Your task to perform on an android device: turn off data saver in the chrome app Image 0: 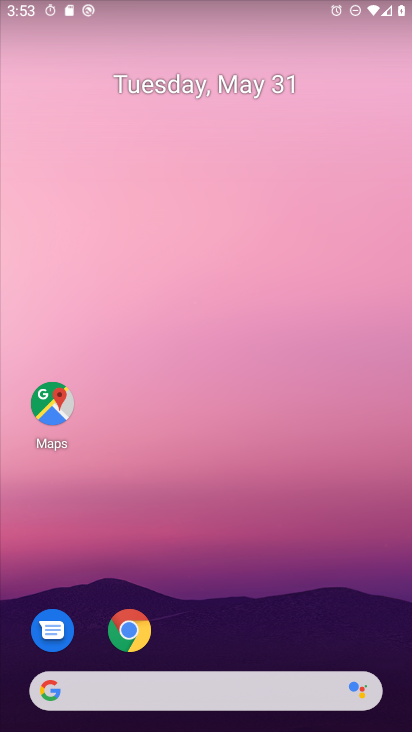
Step 0: drag from (331, 677) to (291, 0)
Your task to perform on an android device: turn off data saver in the chrome app Image 1: 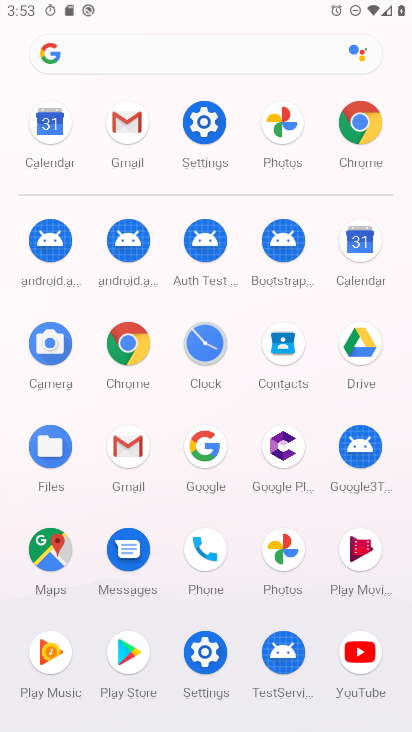
Step 1: click (136, 358)
Your task to perform on an android device: turn off data saver in the chrome app Image 2: 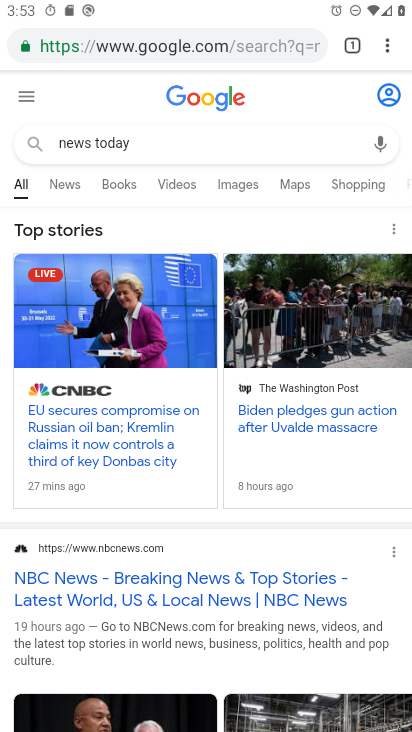
Step 2: click (386, 44)
Your task to perform on an android device: turn off data saver in the chrome app Image 3: 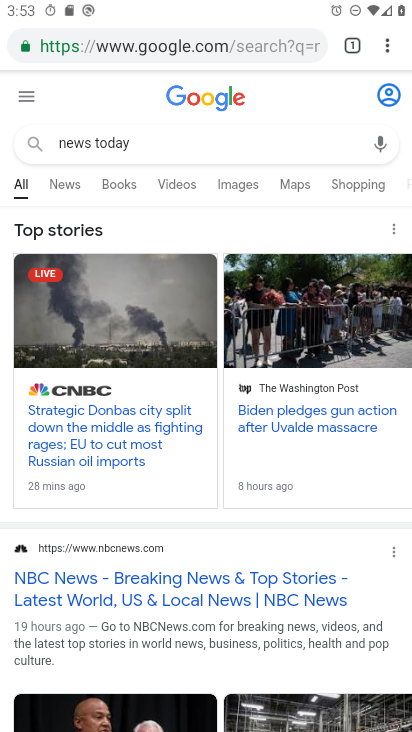
Step 3: drag from (390, 47) to (271, 507)
Your task to perform on an android device: turn off data saver in the chrome app Image 4: 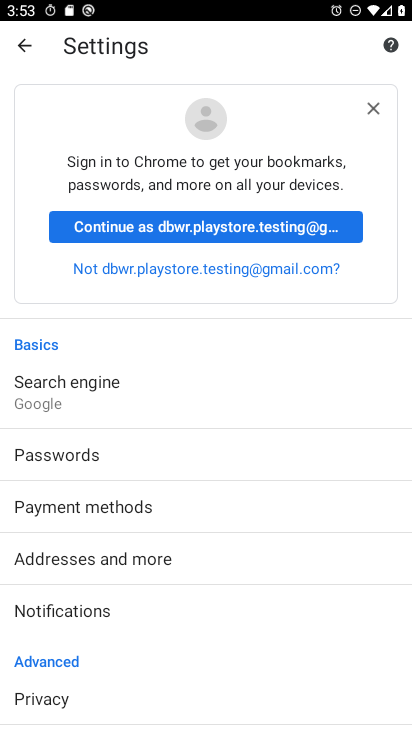
Step 4: drag from (98, 687) to (36, 0)
Your task to perform on an android device: turn off data saver in the chrome app Image 5: 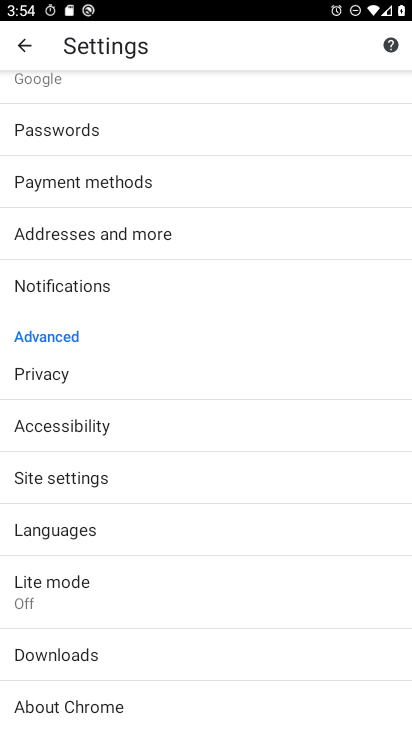
Step 5: click (106, 583)
Your task to perform on an android device: turn off data saver in the chrome app Image 6: 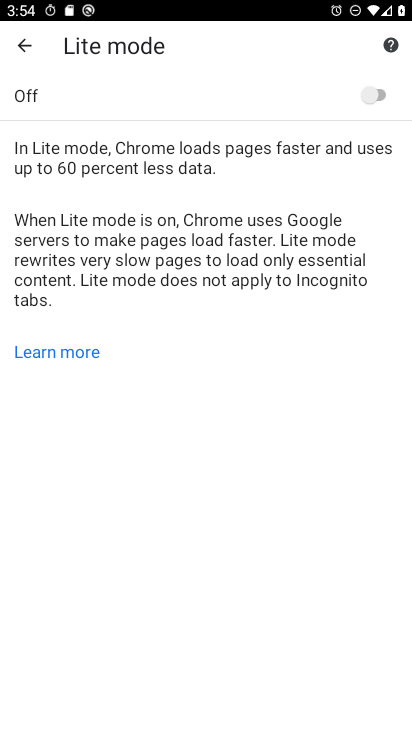
Step 6: task complete